Your task to perform on an android device: Do I have any events tomorrow? Image 0: 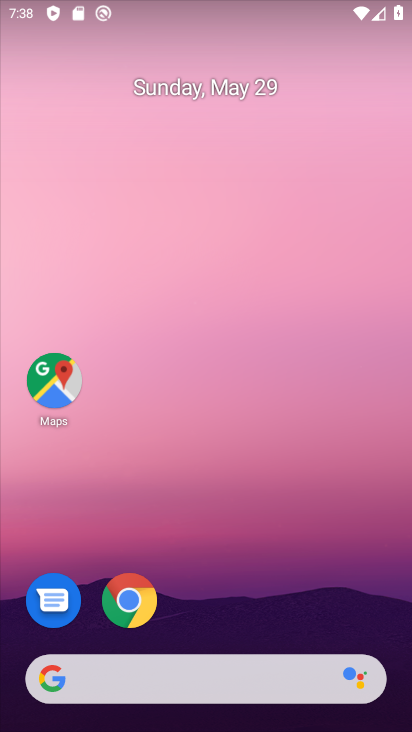
Step 0: drag from (218, 620) to (170, 45)
Your task to perform on an android device: Do I have any events tomorrow? Image 1: 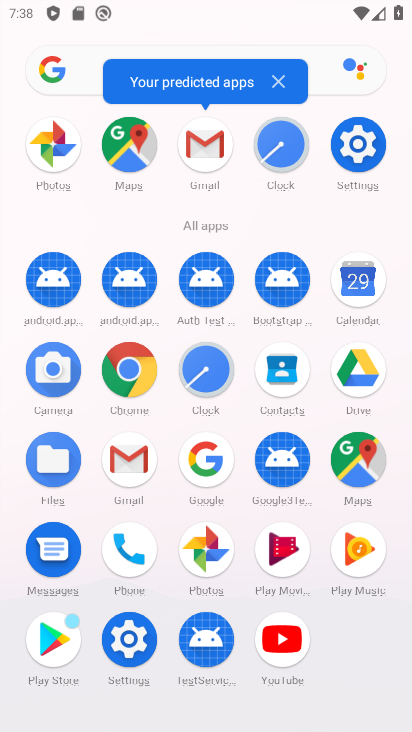
Step 1: click (366, 271)
Your task to perform on an android device: Do I have any events tomorrow? Image 2: 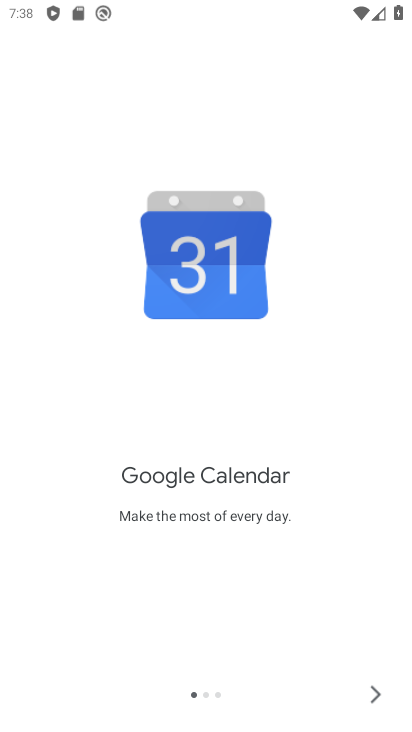
Step 2: click (362, 696)
Your task to perform on an android device: Do I have any events tomorrow? Image 3: 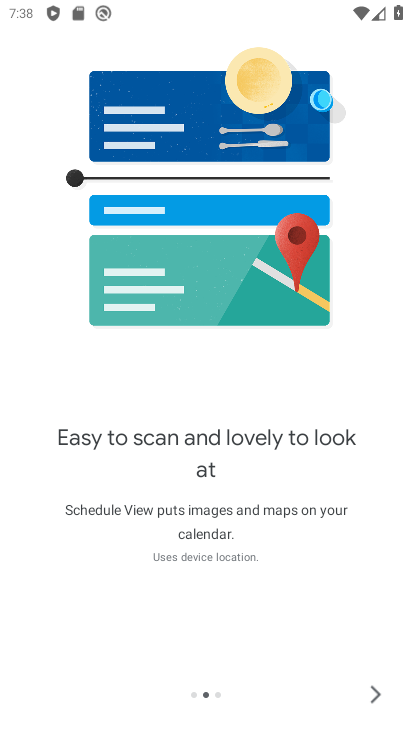
Step 3: click (364, 695)
Your task to perform on an android device: Do I have any events tomorrow? Image 4: 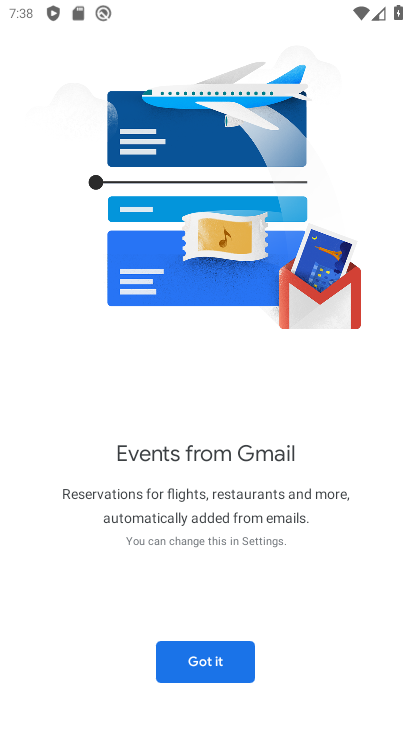
Step 4: click (201, 661)
Your task to perform on an android device: Do I have any events tomorrow? Image 5: 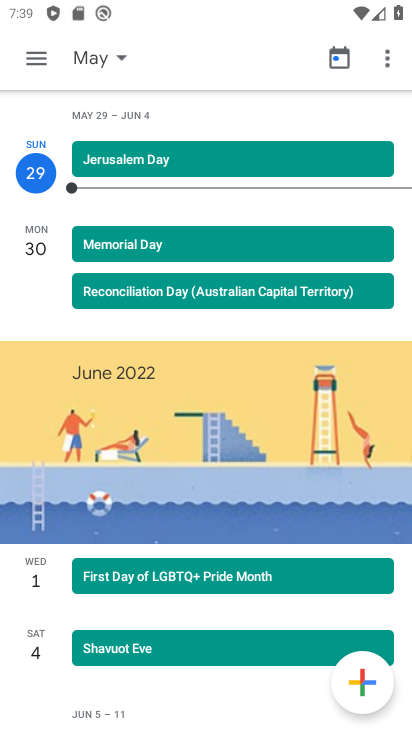
Step 5: click (94, 60)
Your task to perform on an android device: Do I have any events tomorrow? Image 6: 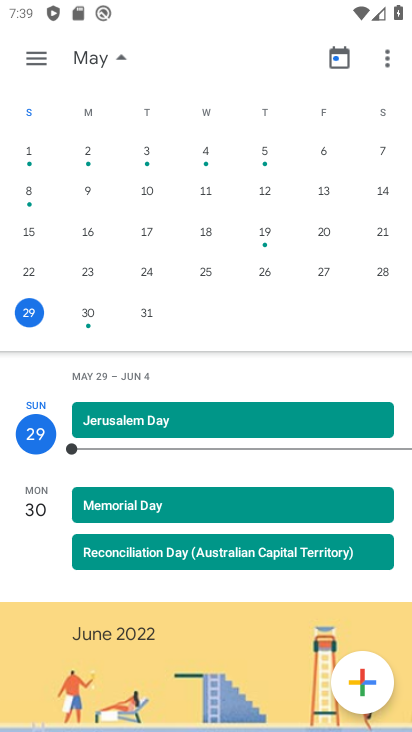
Step 6: click (88, 321)
Your task to perform on an android device: Do I have any events tomorrow? Image 7: 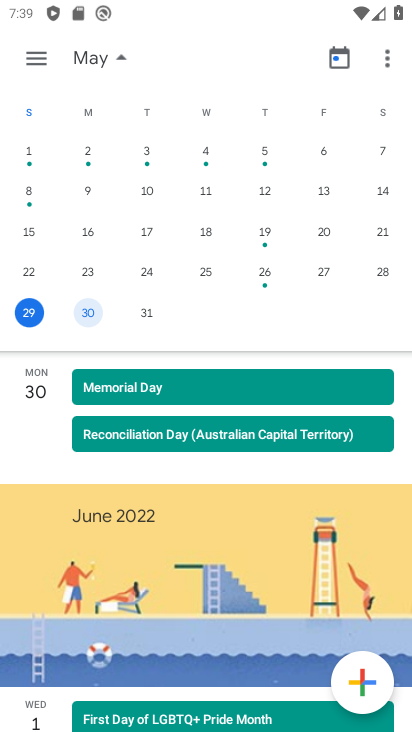
Step 7: task complete